Your task to perform on an android device: uninstall "NewsBreak: Local News & Alerts" Image 0: 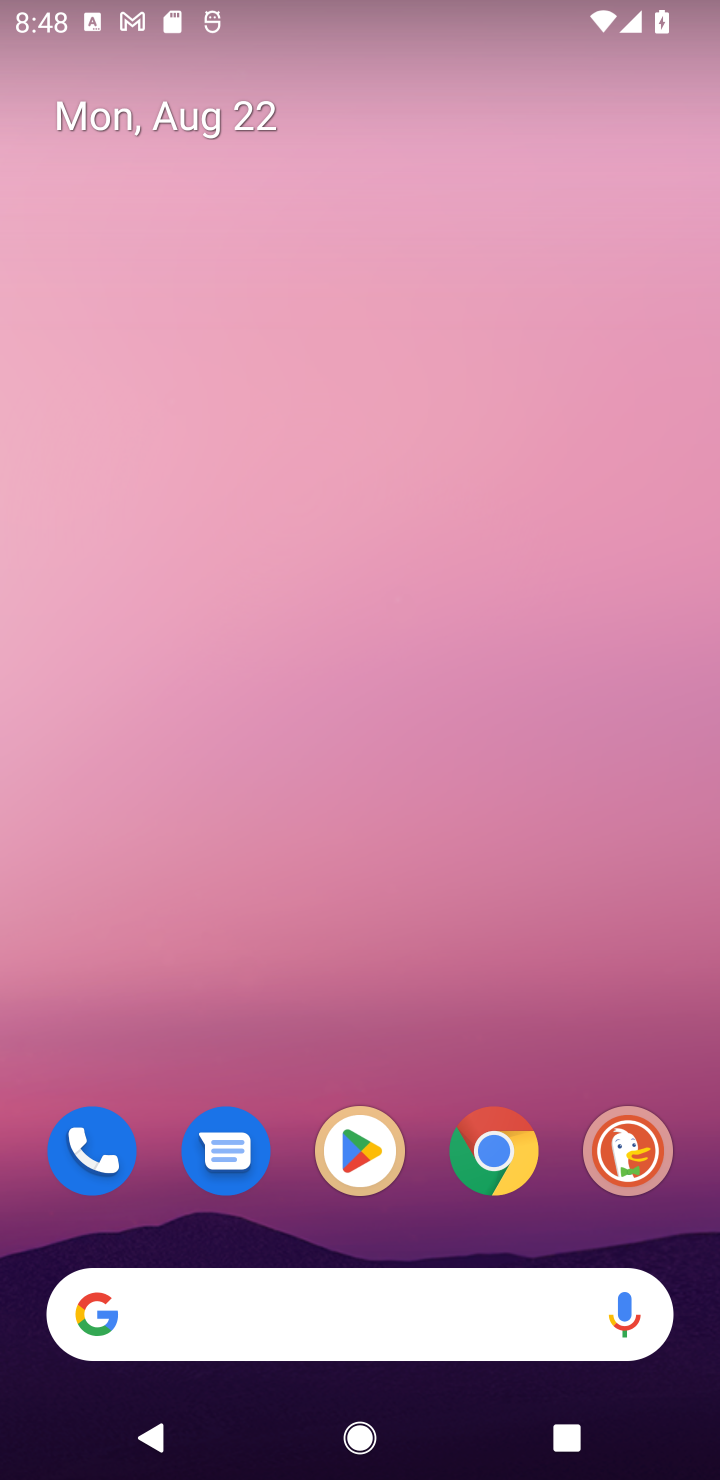
Step 0: click (357, 1147)
Your task to perform on an android device: uninstall "NewsBreak: Local News & Alerts" Image 1: 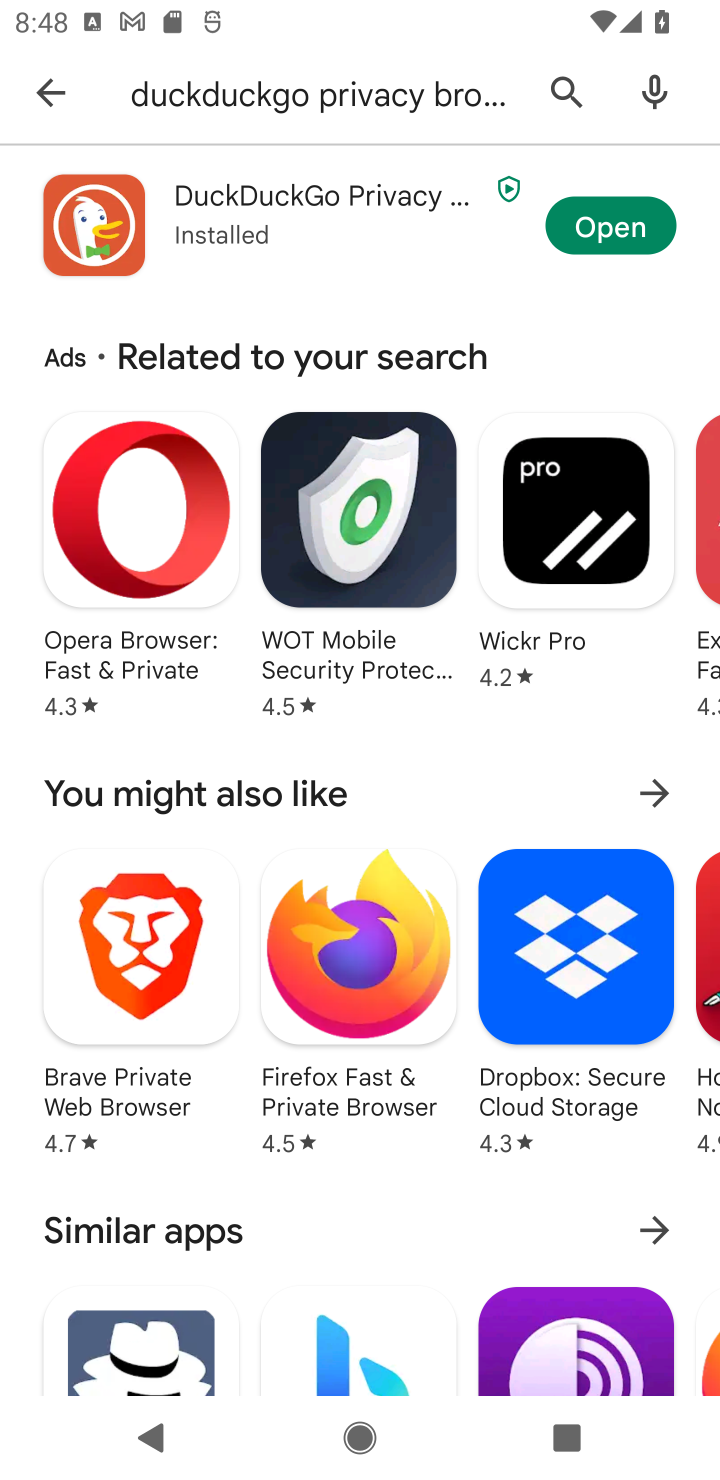
Step 1: click (582, 96)
Your task to perform on an android device: uninstall "NewsBreak: Local News & Alerts" Image 2: 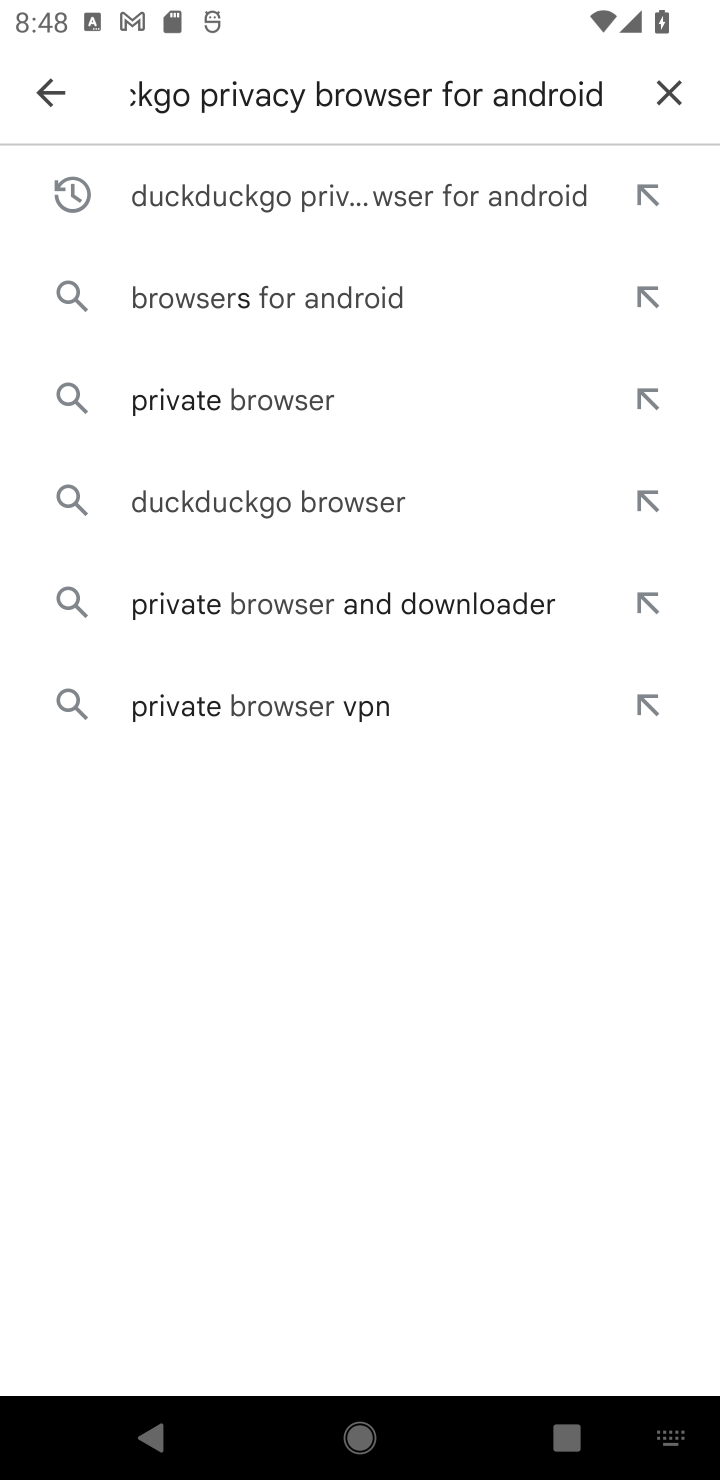
Step 2: click (660, 83)
Your task to perform on an android device: uninstall "NewsBreak: Local News & Alerts" Image 3: 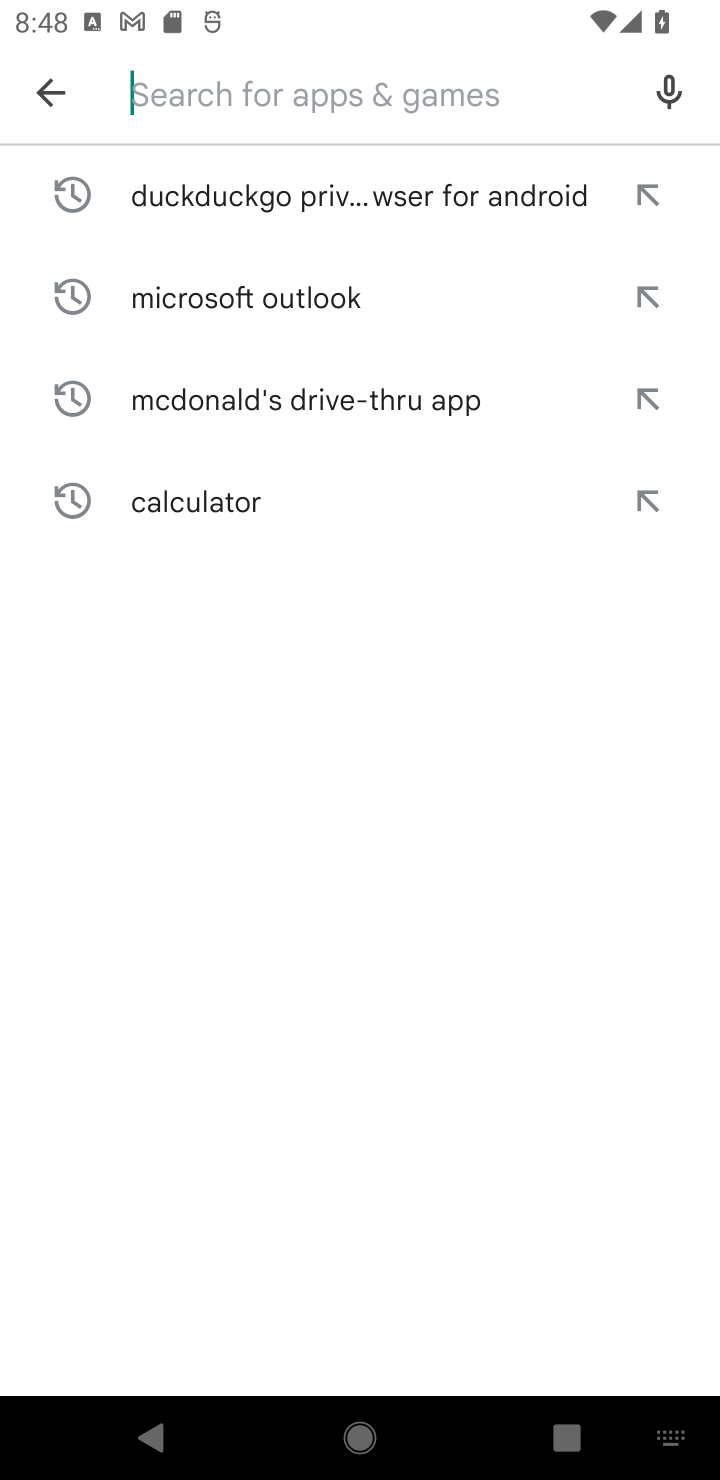
Step 3: type "NewsBreak: Local News & Alerts"
Your task to perform on an android device: uninstall "NewsBreak: Local News & Alerts" Image 4: 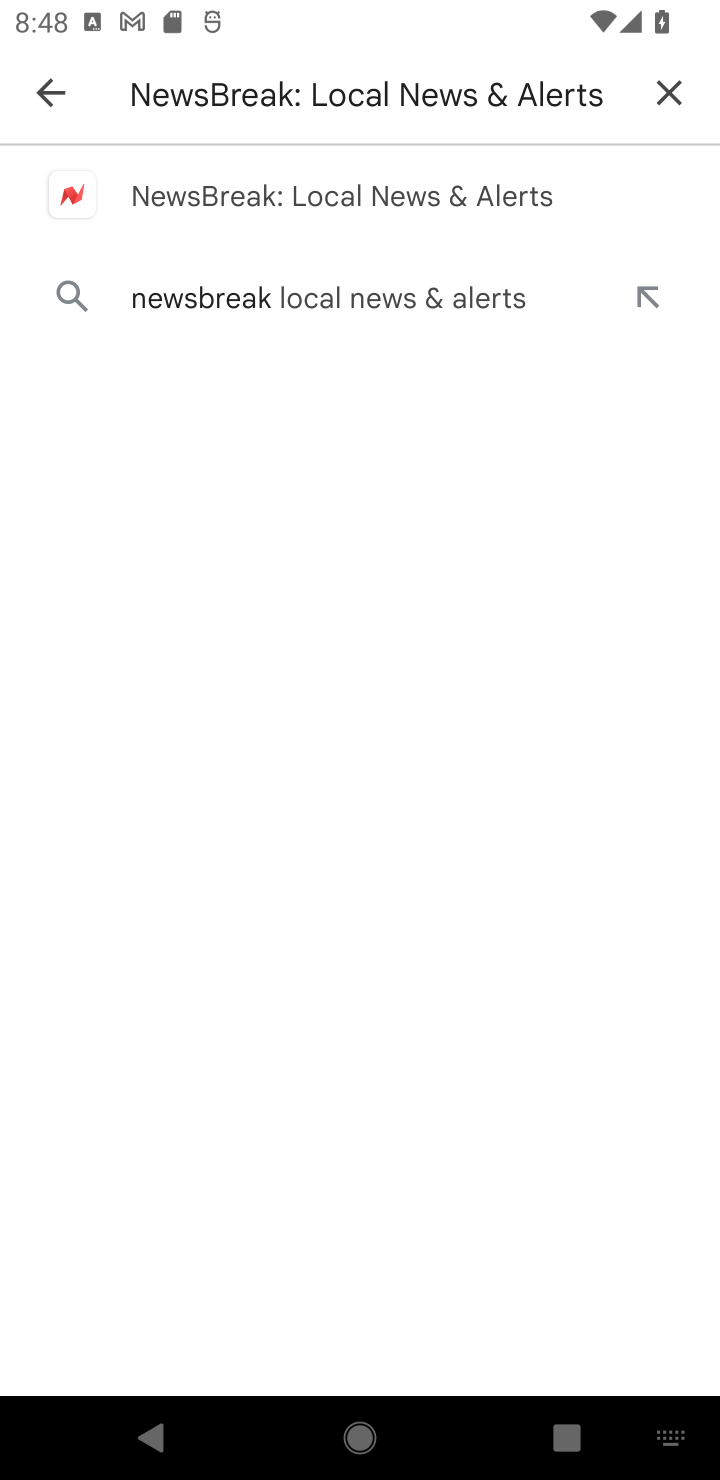
Step 4: click (472, 198)
Your task to perform on an android device: uninstall "NewsBreak: Local News & Alerts" Image 5: 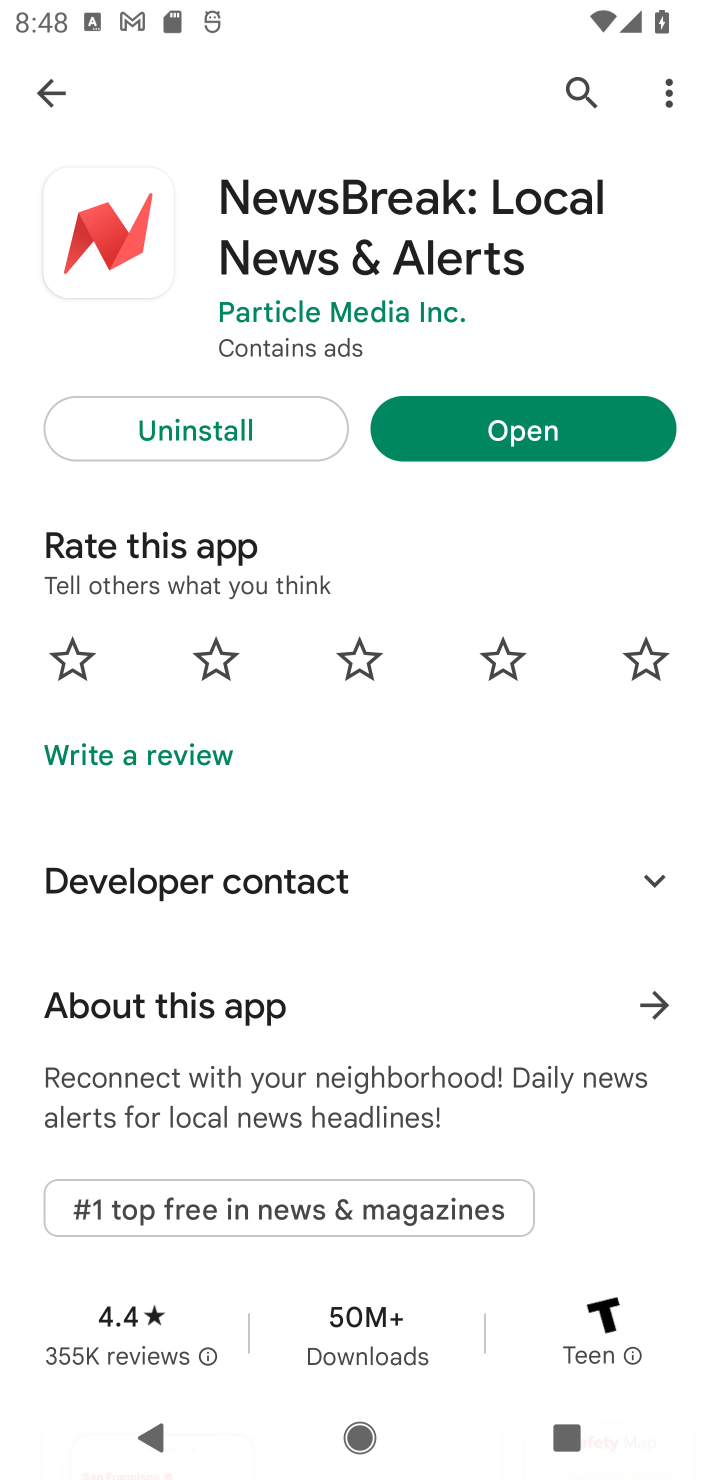
Step 5: click (190, 439)
Your task to perform on an android device: uninstall "NewsBreak: Local News & Alerts" Image 6: 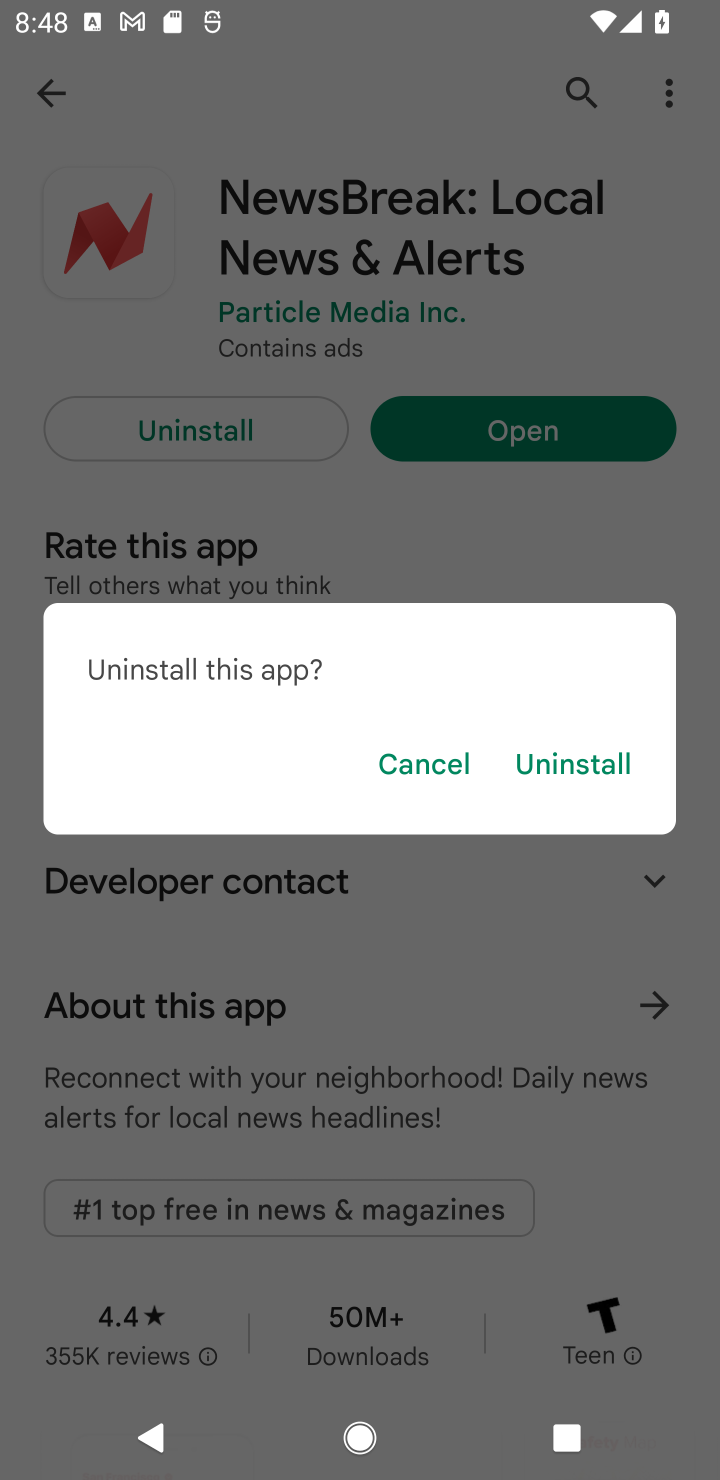
Step 6: click (545, 767)
Your task to perform on an android device: uninstall "NewsBreak: Local News & Alerts" Image 7: 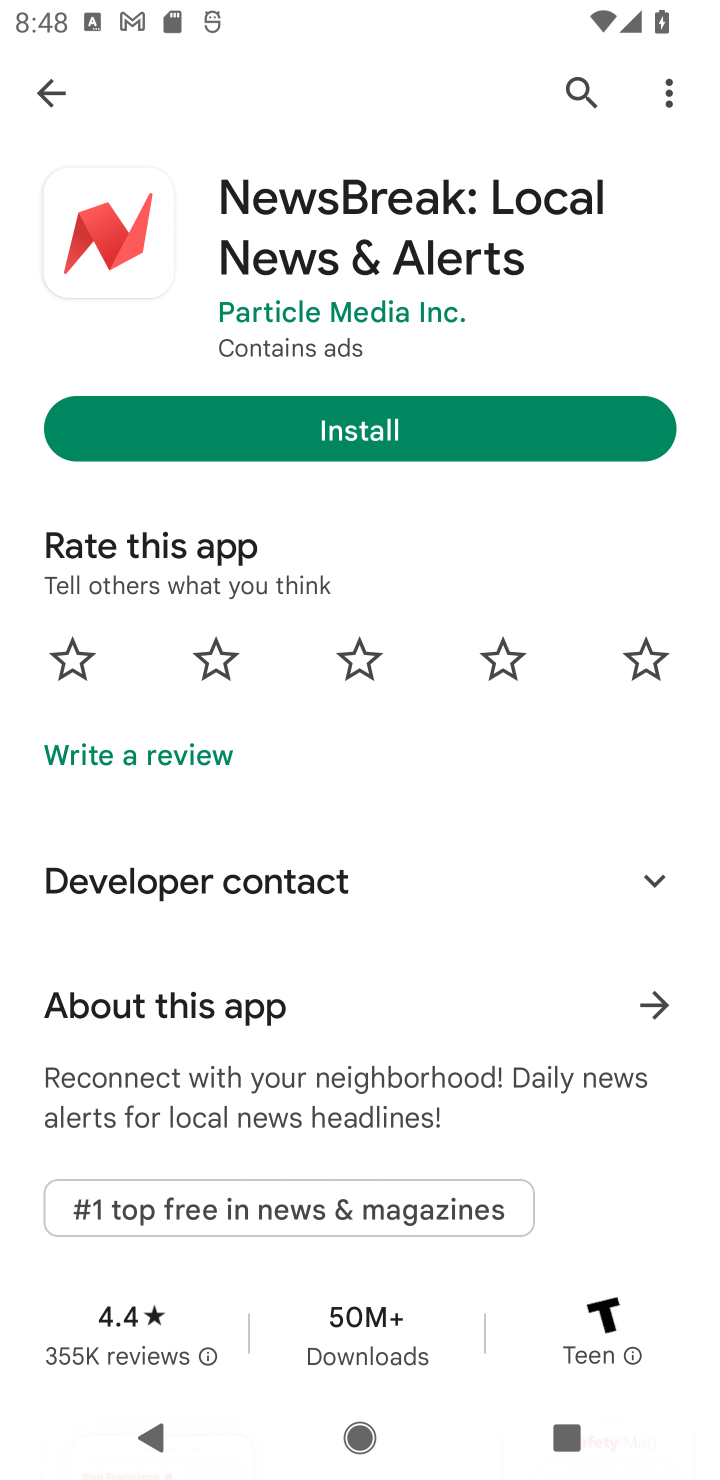
Step 7: task complete